Your task to perform on an android device: Open the calendar and show me this week's events Image 0: 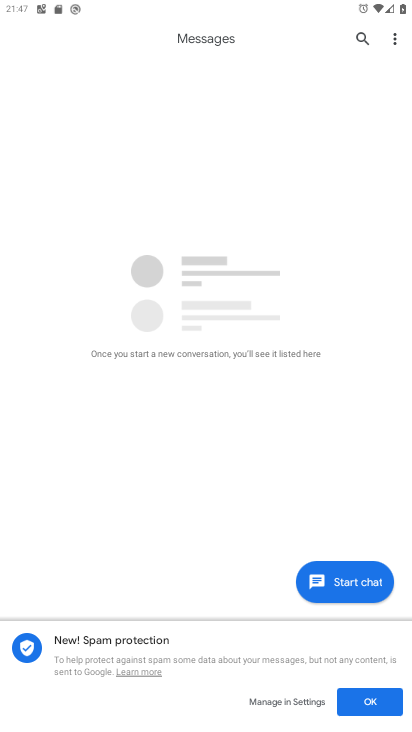
Step 0: press home button
Your task to perform on an android device: Open the calendar and show me this week's events Image 1: 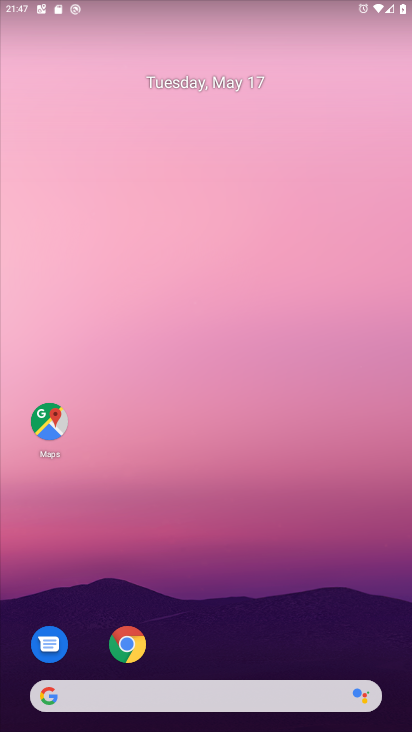
Step 1: drag from (182, 662) to (245, 104)
Your task to perform on an android device: Open the calendar and show me this week's events Image 2: 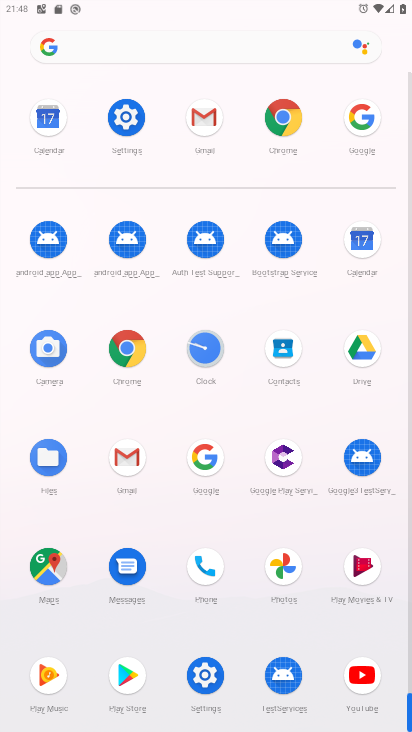
Step 2: click (370, 237)
Your task to perform on an android device: Open the calendar and show me this week's events Image 3: 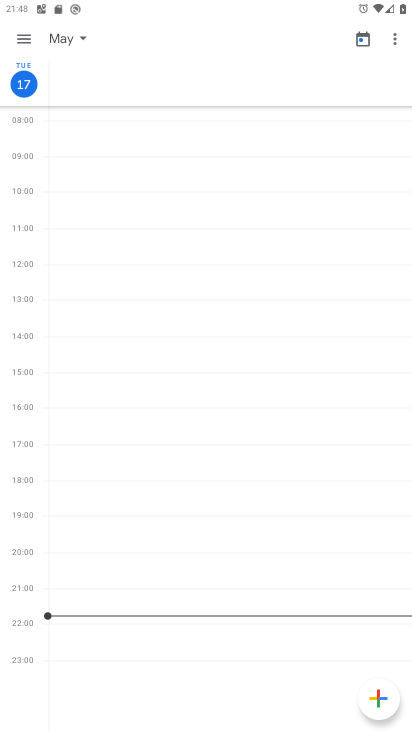
Step 3: click (20, 39)
Your task to perform on an android device: Open the calendar and show me this week's events Image 4: 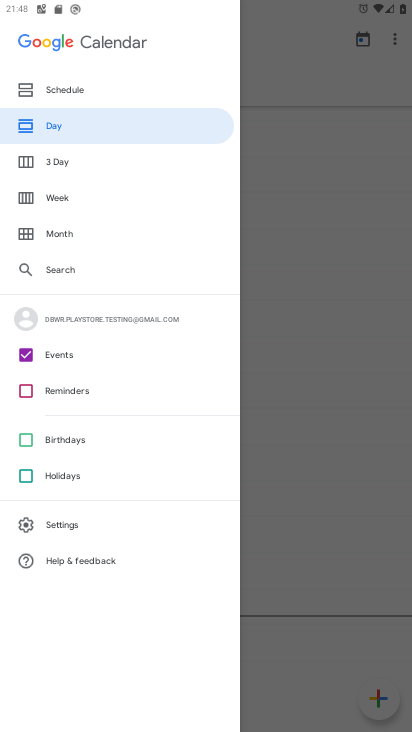
Step 4: click (40, 194)
Your task to perform on an android device: Open the calendar and show me this week's events Image 5: 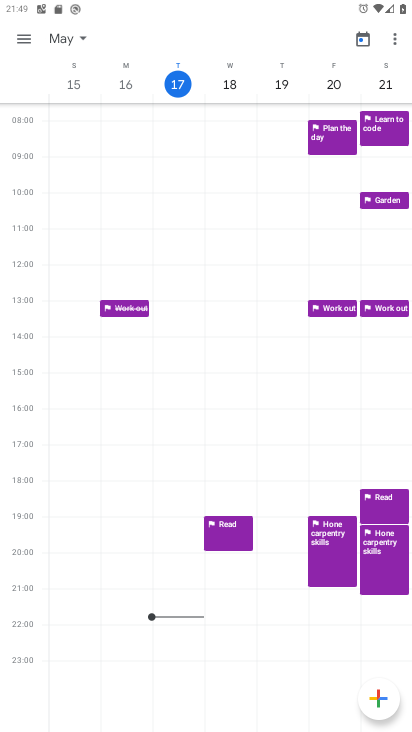
Step 5: drag from (385, 86) to (9, 94)
Your task to perform on an android device: Open the calendar and show me this week's events Image 6: 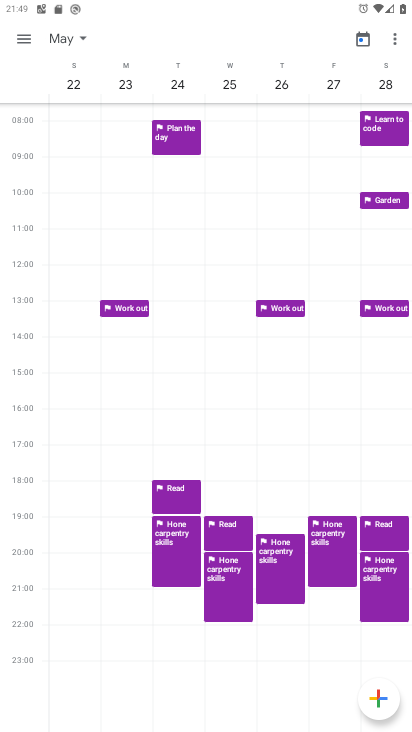
Step 6: drag from (57, 82) to (396, 89)
Your task to perform on an android device: Open the calendar and show me this week's events Image 7: 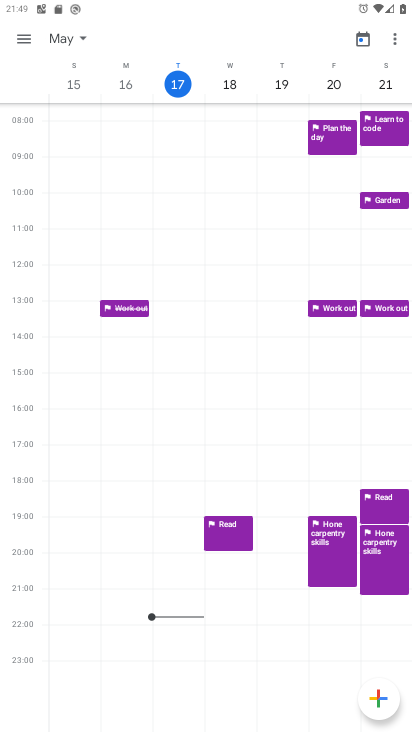
Step 7: click (179, 83)
Your task to perform on an android device: Open the calendar and show me this week's events Image 8: 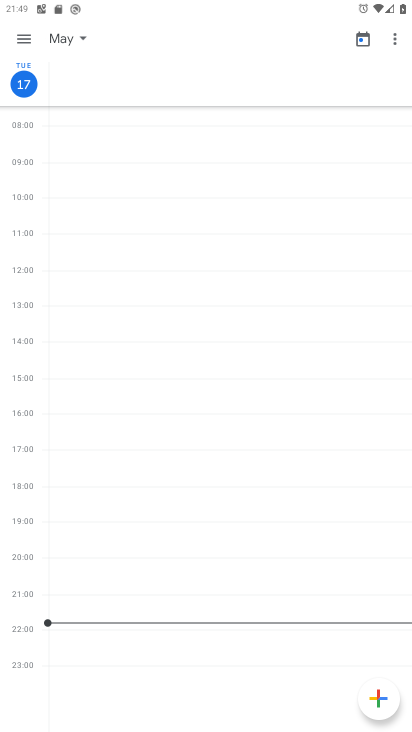
Step 8: click (34, 95)
Your task to perform on an android device: Open the calendar and show me this week's events Image 9: 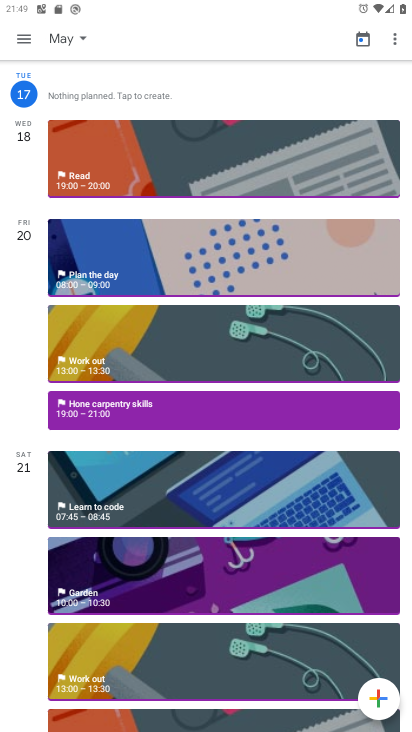
Step 9: task complete